Your task to perform on an android device: Open location settings Image 0: 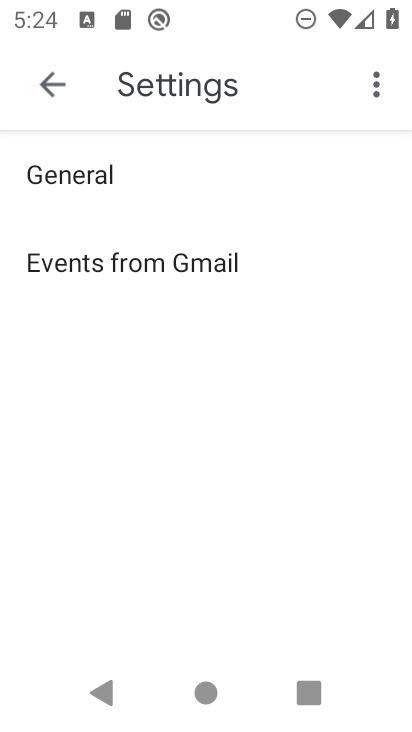
Step 0: press home button
Your task to perform on an android device: Open location settings Image 1: 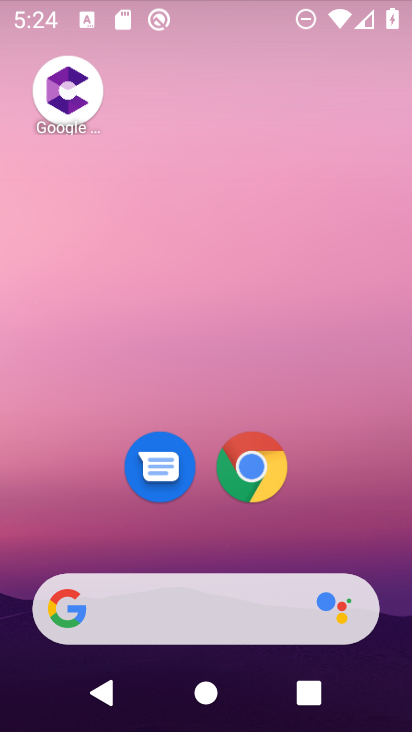
Step 1: drag from (295, 651) to (331, 0)
Your task to perform on an android device: Open location settings Image 2: 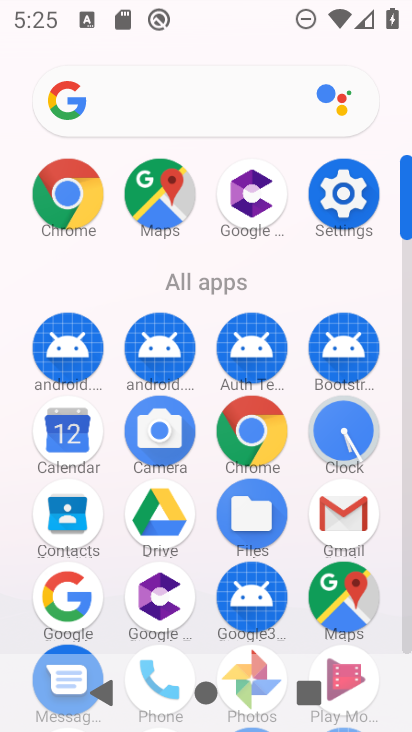
Step 2: click (336, 187)
Your task to perform on an android device: Open location settings Image 3: 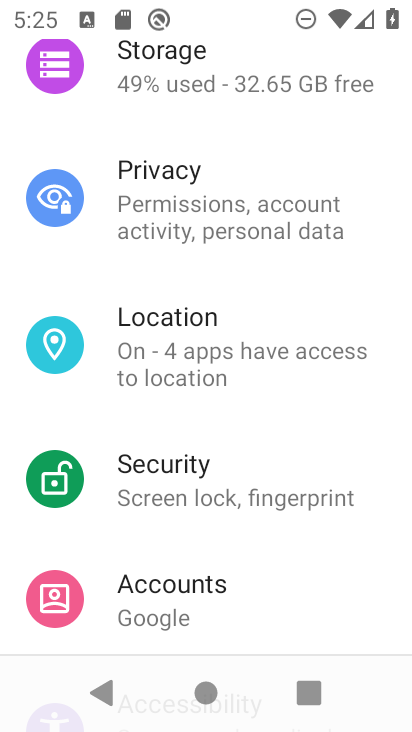
Step 3: click (191, 342)
Your task to perform on an android device: Open location settings Image 4: 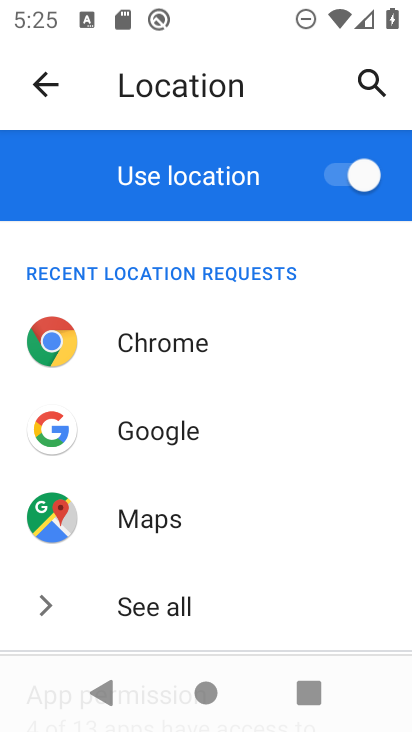
Step 4: task complete